Your task to perform on an android device: install app "eBay: The shopping marketplace" Image 0: 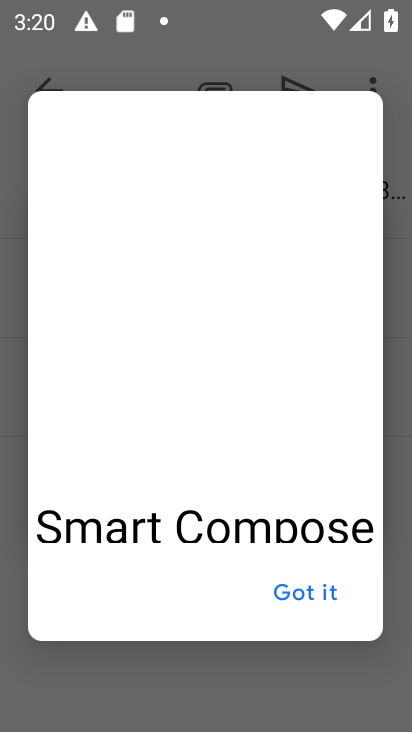
Step 0: press home button
Your task to perform on an android device: install app "eBay: The shopping marketplace" Image 1: 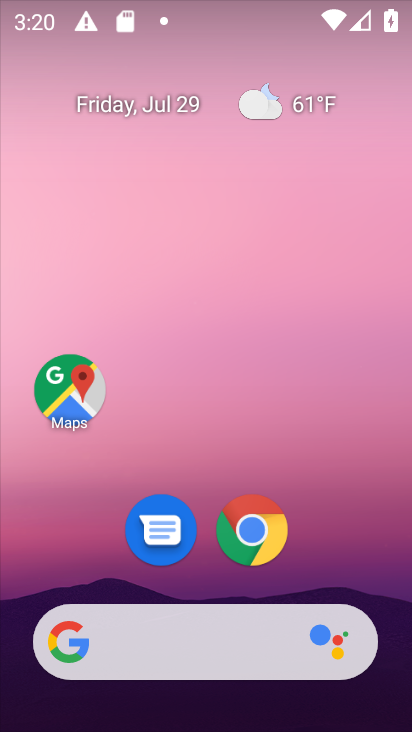
Step 1: drag from (327, 499) to (329, 21)
Your task to perform on an android device: install app "eBay: The shopping marketplace" Image 2: 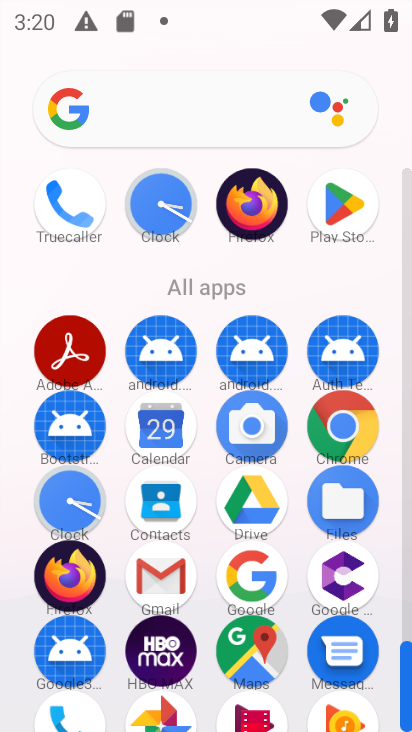
Step 2: click (337, 205)
Your task to perform on an android device: install app "eBay: The shopping marketplace" Image 3: 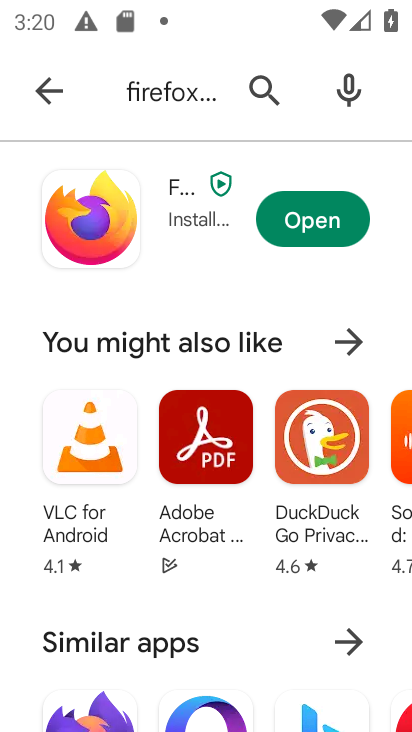
Step 3: click (255, 92)
Your task to perform on an android device: install app "eBay: The shopping marketplace" Image 4: 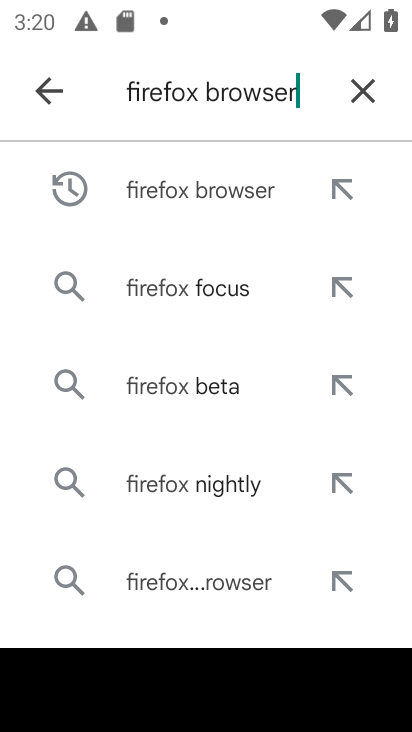
Step 4: click (358, 94)
Your task to perform on an android device: install app "eBay: The shopping marketplace" Image 5: 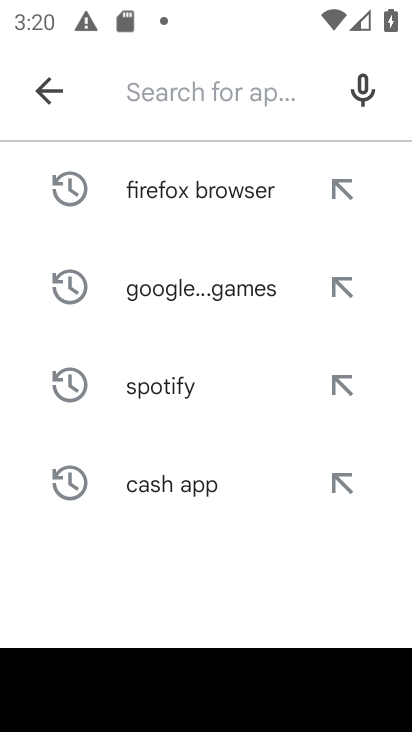
Step 5: type "eBay: The shopping marketplace"
Your task to perform on an android device: install app "eBay: The shopping marketplace" Image 6: 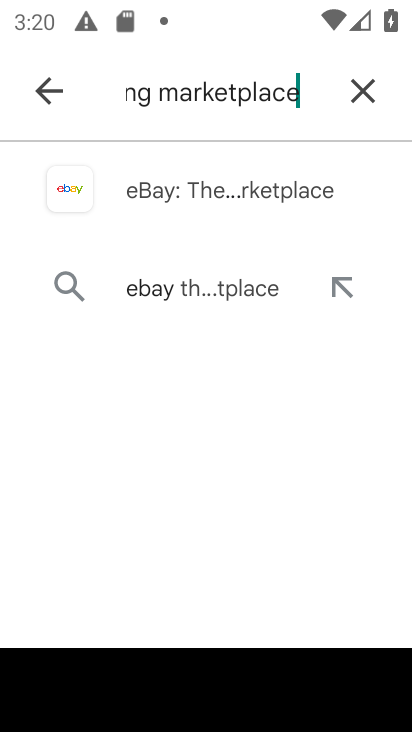
Step 6: click (154, 200)
Your task to perform on an android device: install app "eBay: The shopping marketplace" Image 7: 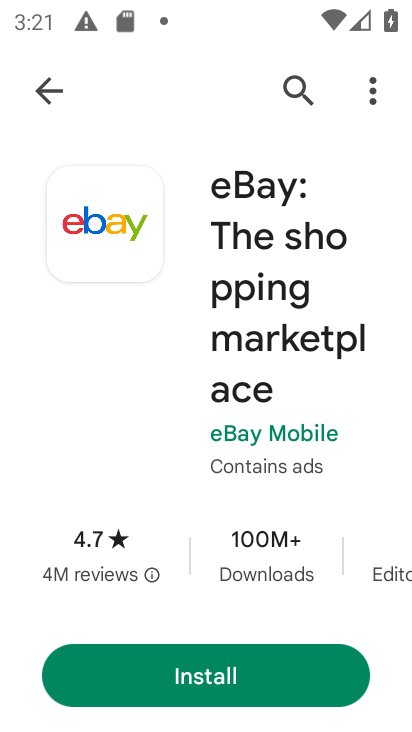
Step 7: click (228, 680)
Your task to perform on an android device: install app "eBay: The shopping marketplace" Image 8: 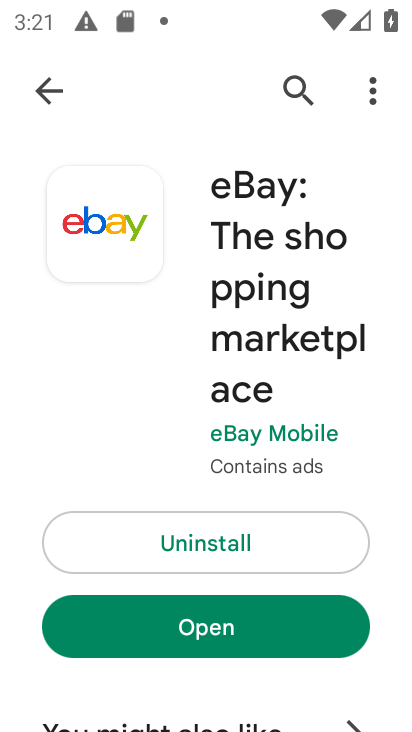
Step 8: task complete